Your task to perform on an android device: Go to Android settings Image 0: 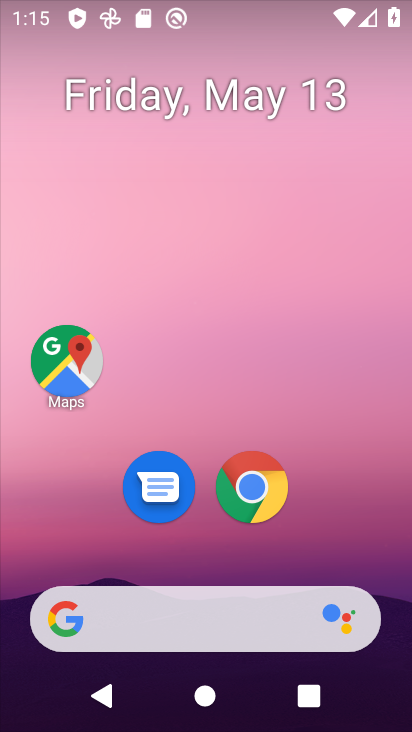
Step 0: drag from (406, 553) to (394, 183)
Your task to perform on an android device: Go to Android settings Image 1: 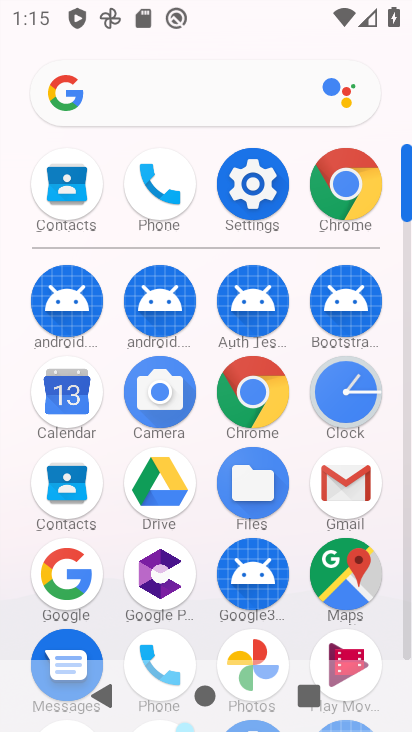
Step 1: click (267, 177)
Your task to perform on an android device: Go to Android settings Image 2: 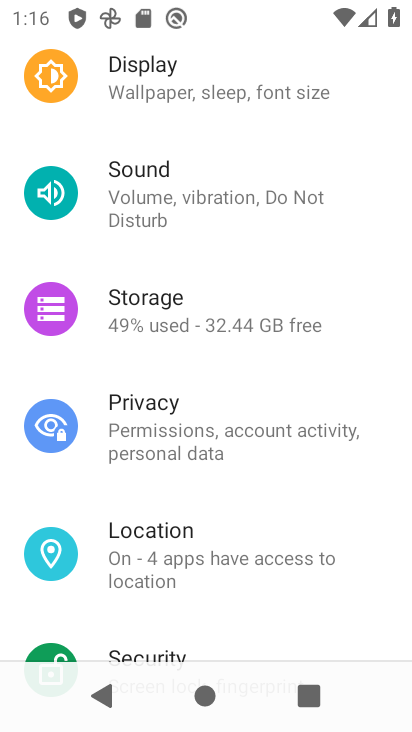
Step 2: task complete